Your task to perform on an android device: Empty the shopping cart on newegg.com. Add "jbl charge 4" to the cart on newegg.com, then select checkout. Image 0: 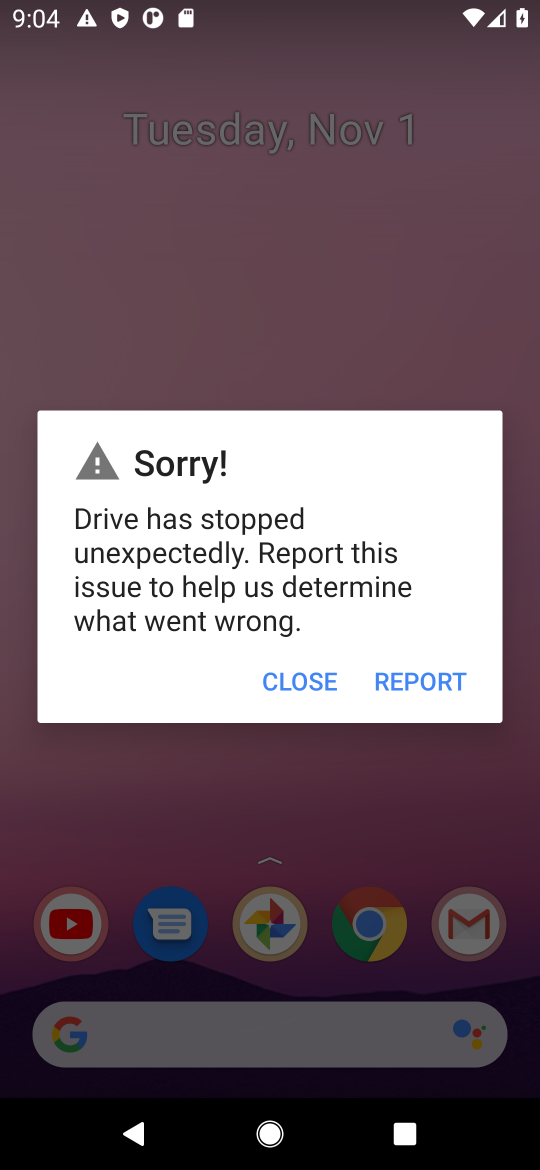
Step 0: click (310, 680)
Your task to perform on an android device: Empty the shopping cart on newegg.com. Add "jbl charge 4" to the cart on newegg.com, then select checkout. Image 1: 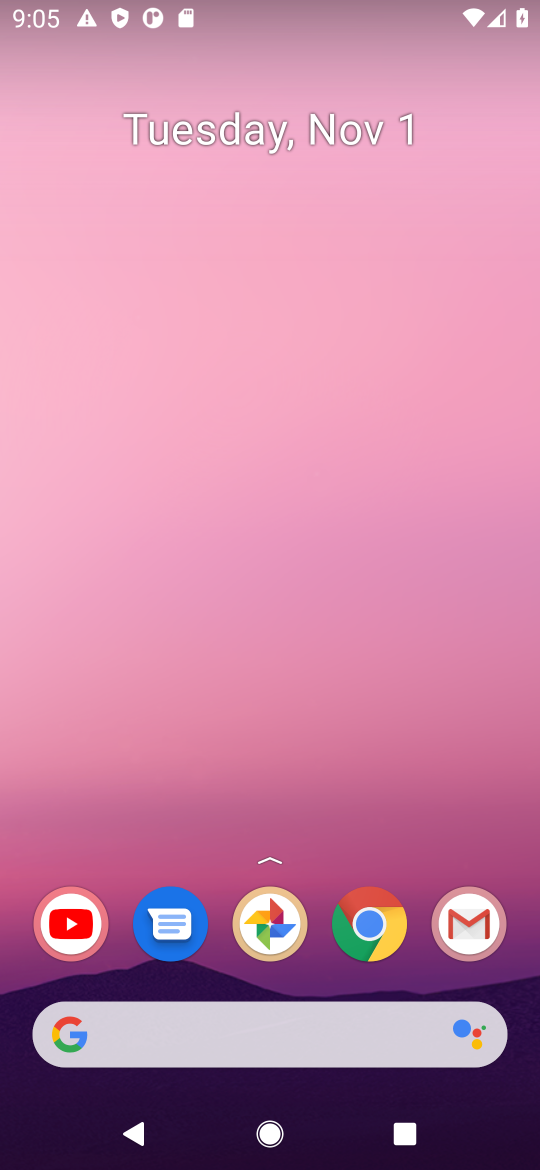
Step 1: click (370, 934)
Your task to perform on an android device: Empty the shopping cart on newegg.com. Add "jbl charge 4" to the cart on newegg.com, then select checkout. Image 2: 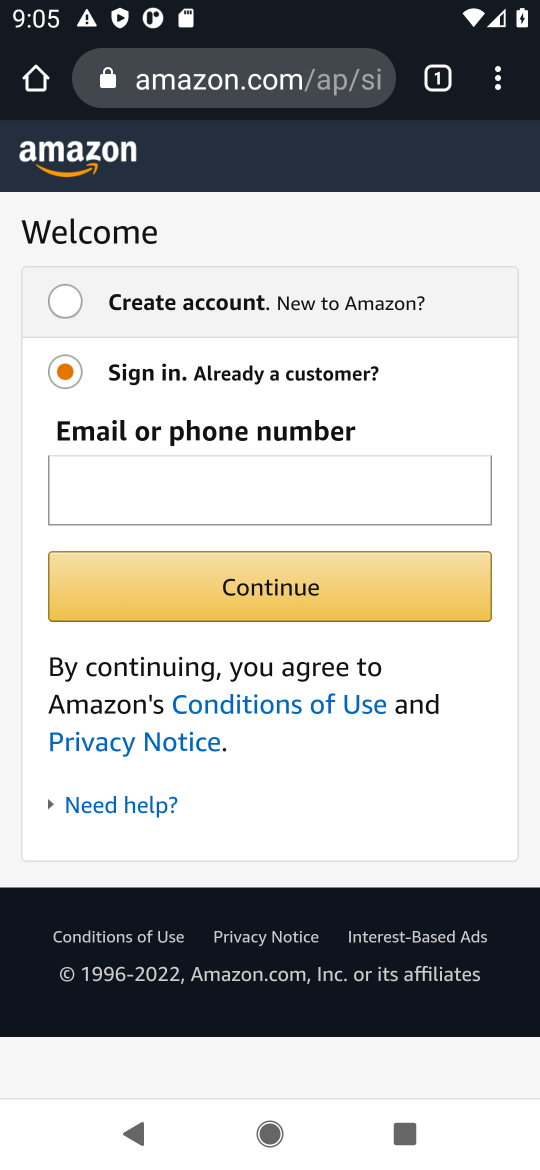
Step 2: click (230, 80)
Your task to perform on an android device: Empty the shopping cart on newegg.com. Add "jbl charge 4" to the cart on newegg.com, then select checkout. Image 3: 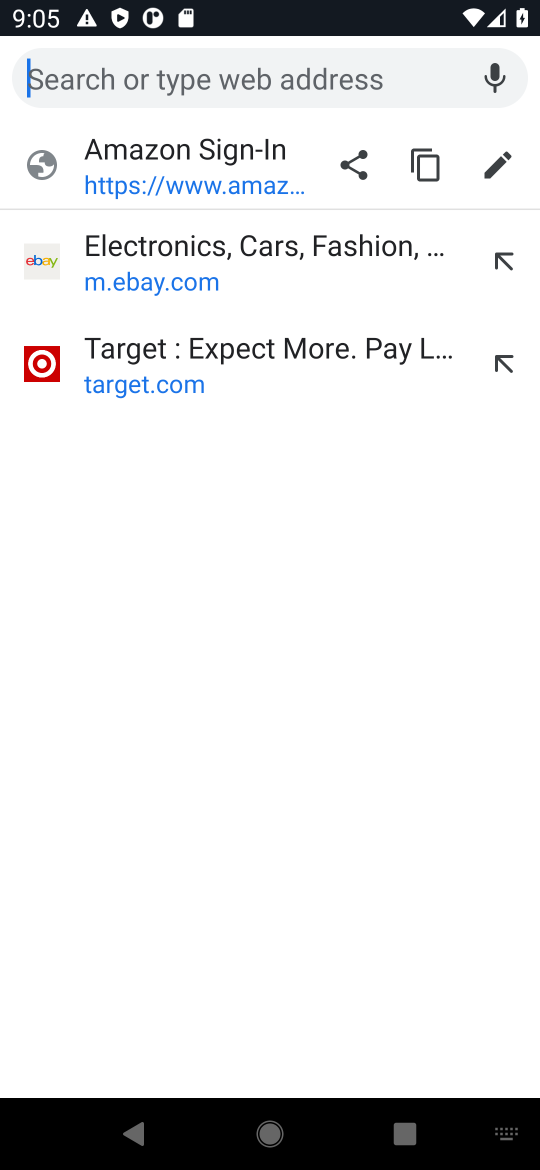
Step 3: type "newegg.com"
Your task to perform on an android device: Empty the shopping cart on newegg.com. Add "jbl charge 4" to the cart on newegg.com, then select checkout. Image 4: 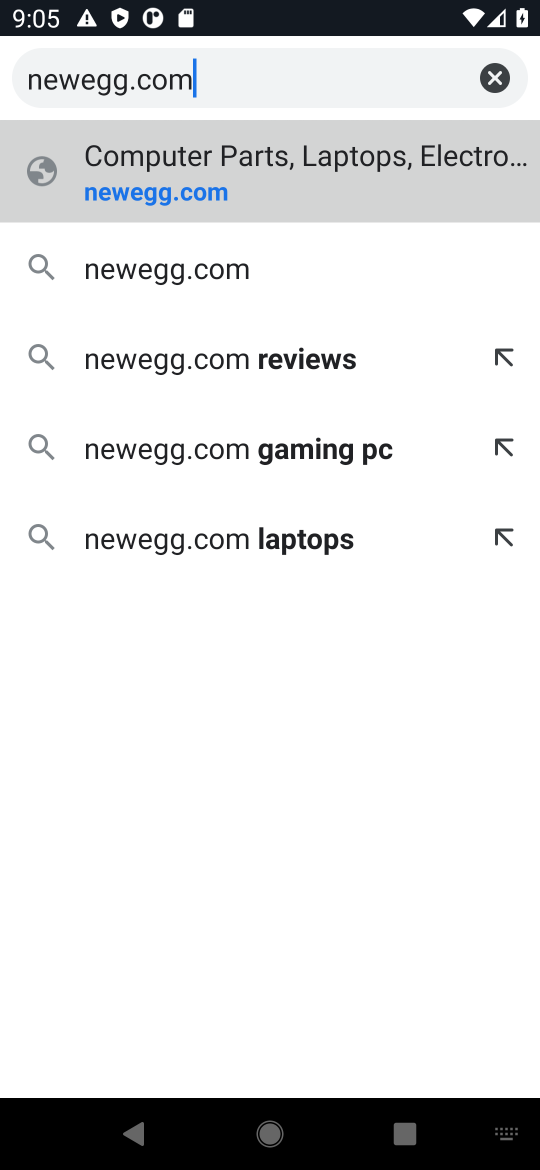
Step 4: press enter
Your task to perform on an android device: Empty the shopping cart on newegg.com. Add "jbl charge 4" to the cart on newegg.com, then select checkout. Image 5: 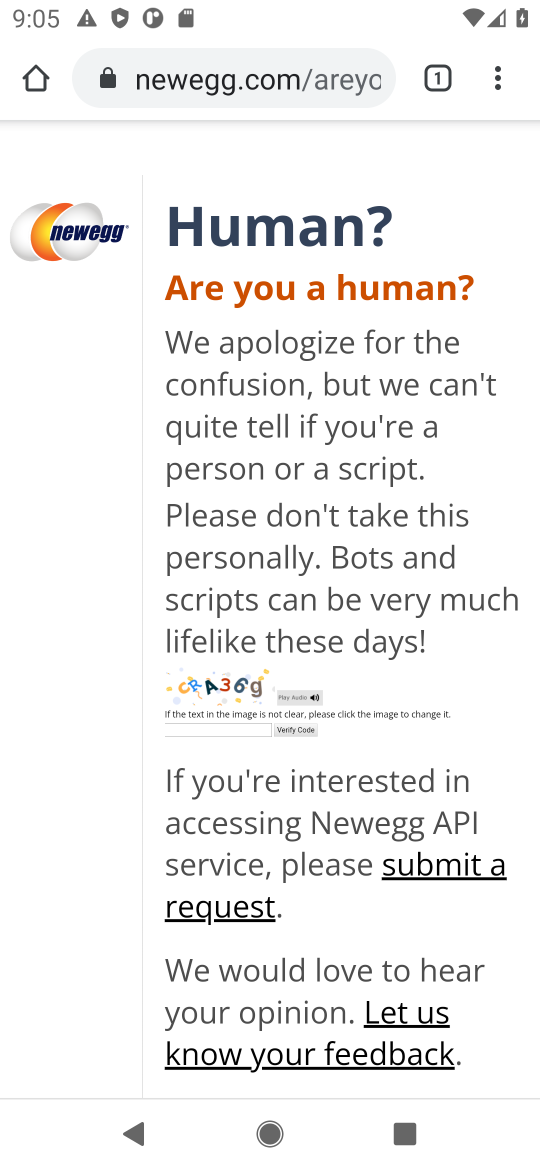
Step 5: click (228, 729)
Your task to perform on an android device: Empty the shopping cart on newegg.com. Add "jbl charge 4" to the cart on newegg.com, then select checkout. Image 6: 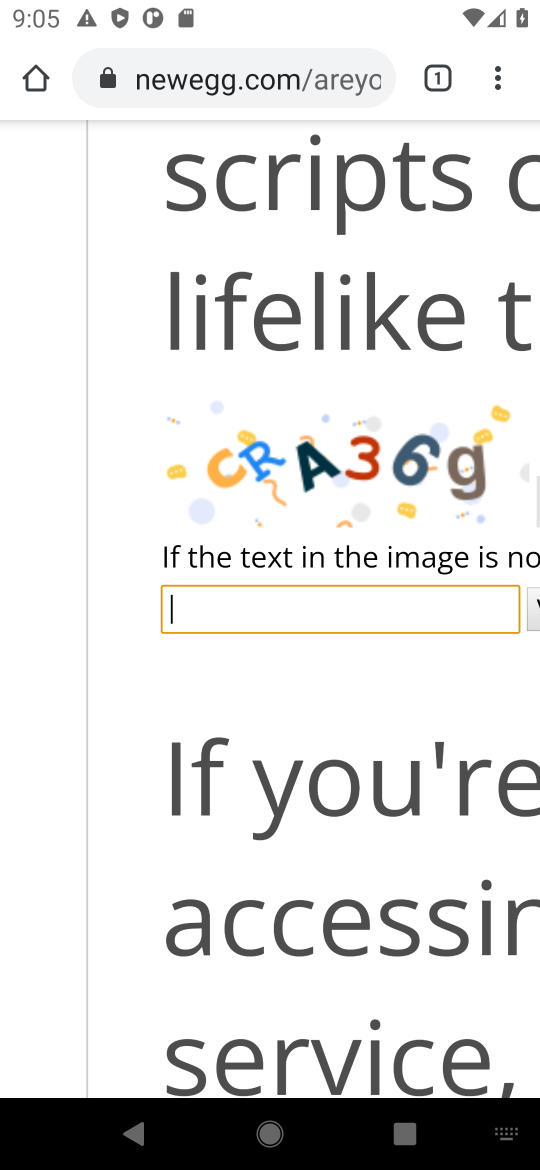
Step 6: type "CRA36g"
Your task to perform on an android device: Empty the shopping cart on newegg.com. Add "jbl charge 4" to the cart on newegg.com, then select checkout. Image 7: 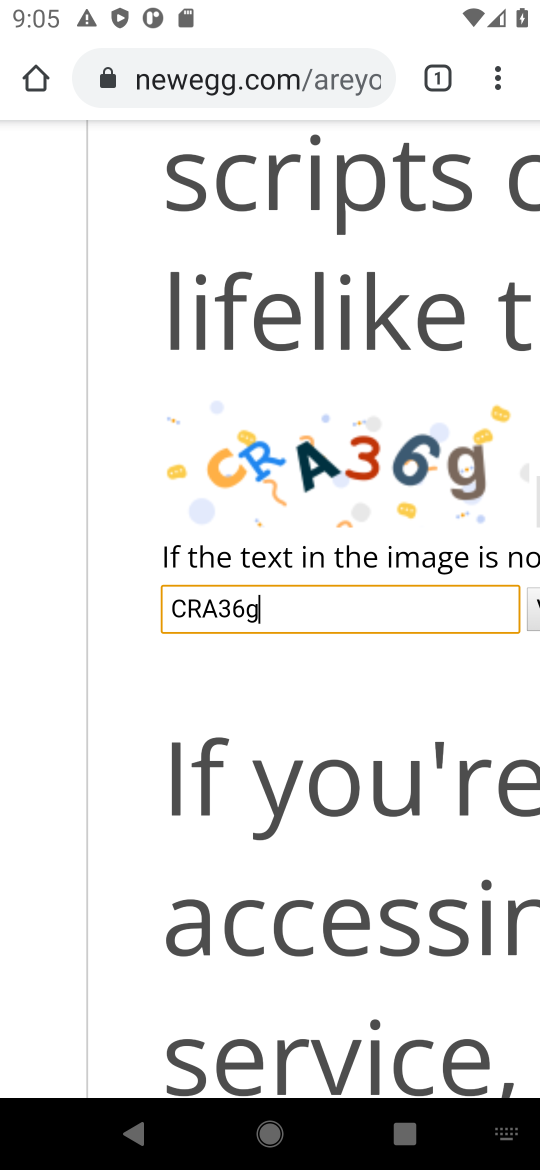
Step 7: press enter
Your task to perform on an android device: Empty the shopping cart on newegg.com. Add "jbl charge 4" to the cart on newegg.com, then select checkout. Image 8: 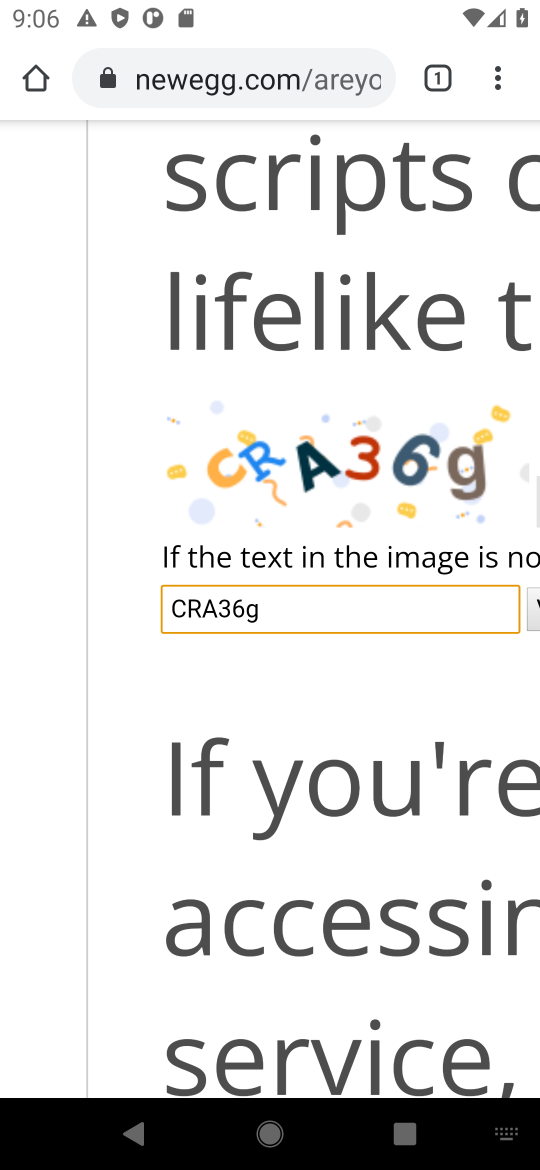
Step 8: click (536, 604)
Your task to perform on an android device: Empty the shopping cart on newegg.com. Add "jbl charge 4" to the cart on newegg.com, then select checkout. Image 9: 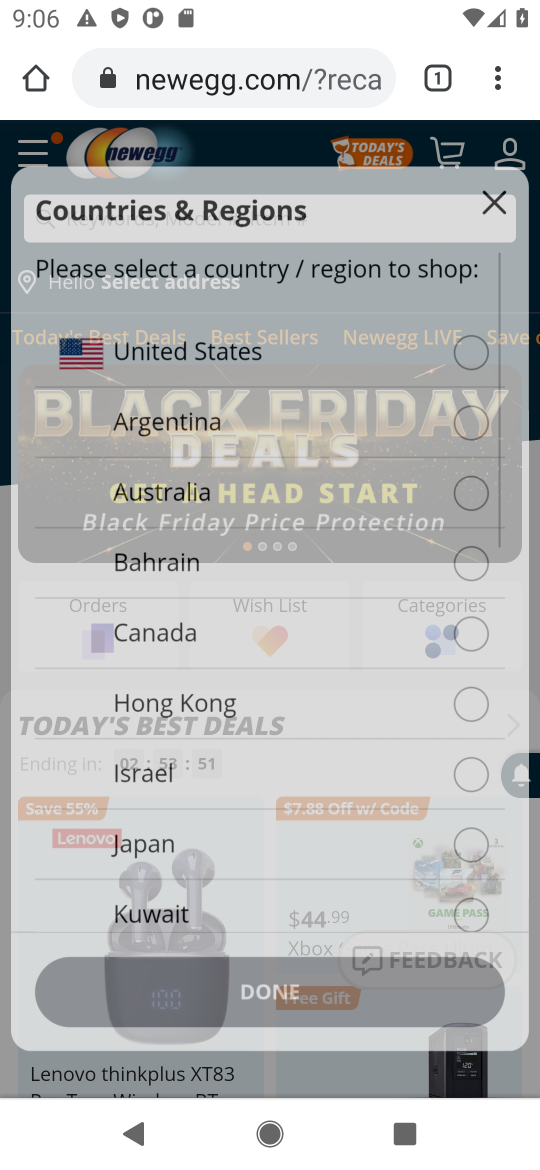
Step 9: click (459, 149)
Your task to perform on an android device: Empty the shopping cart on newegg.com. Add "jbl charge 4" to the cart on newegg.com, then select checkout. Image 10: 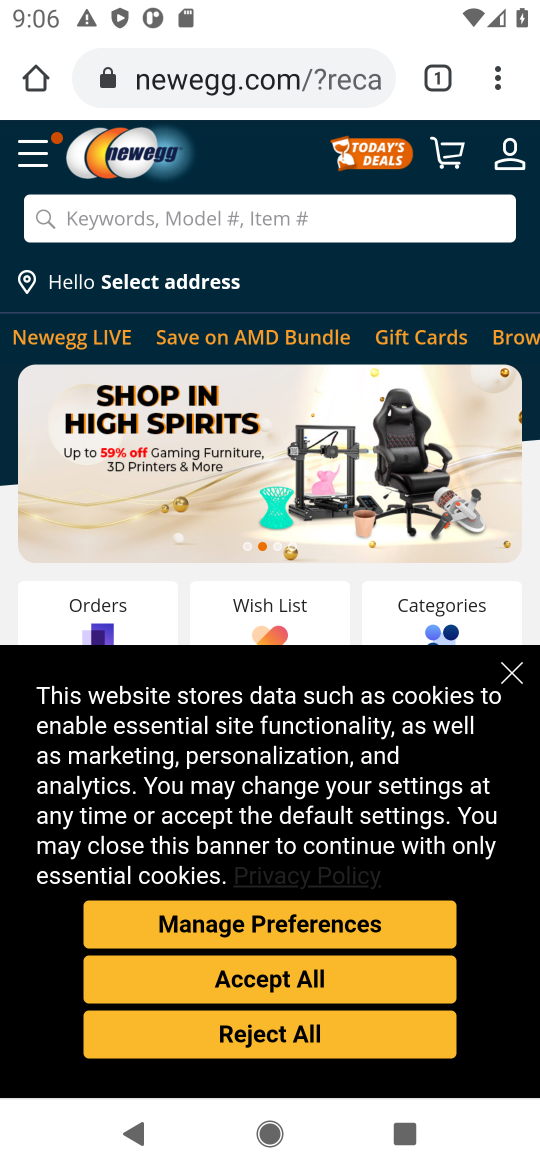
Step 10: click (516, 671)
Your task to perform on an android device: Empty the shopping cart on newegg.com. Add "jbl charge 4" to the cart on newegg.com, then select checkout. Image 11: 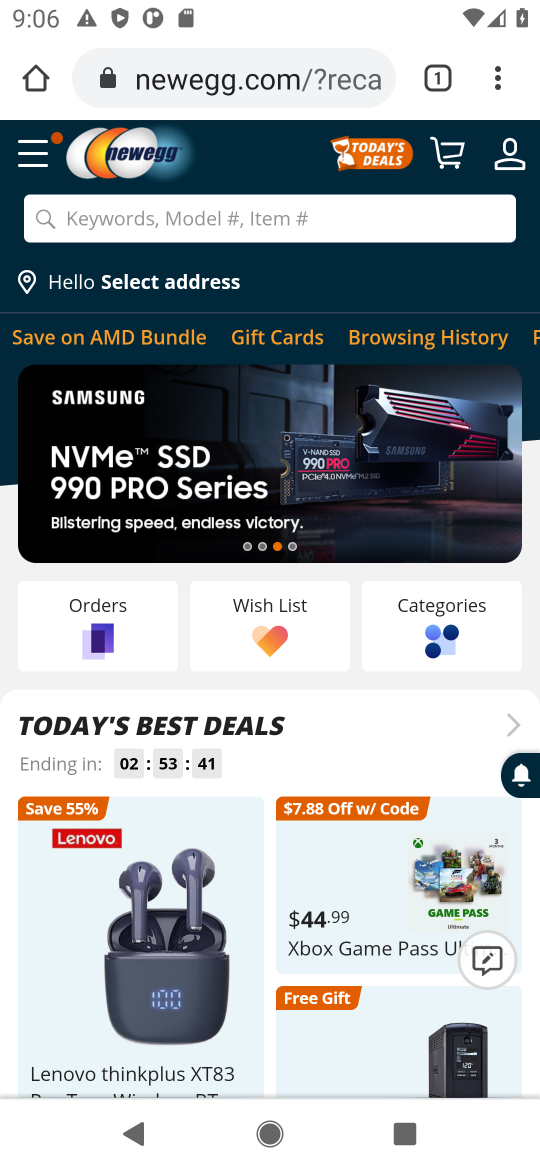
Step 11: click (446, 161)
Your task to perform on an android device: Empty the shopping cart on newegg.com. Add "jbl charge 4" to the cart on newegg.com, then select checkout. Image 12: 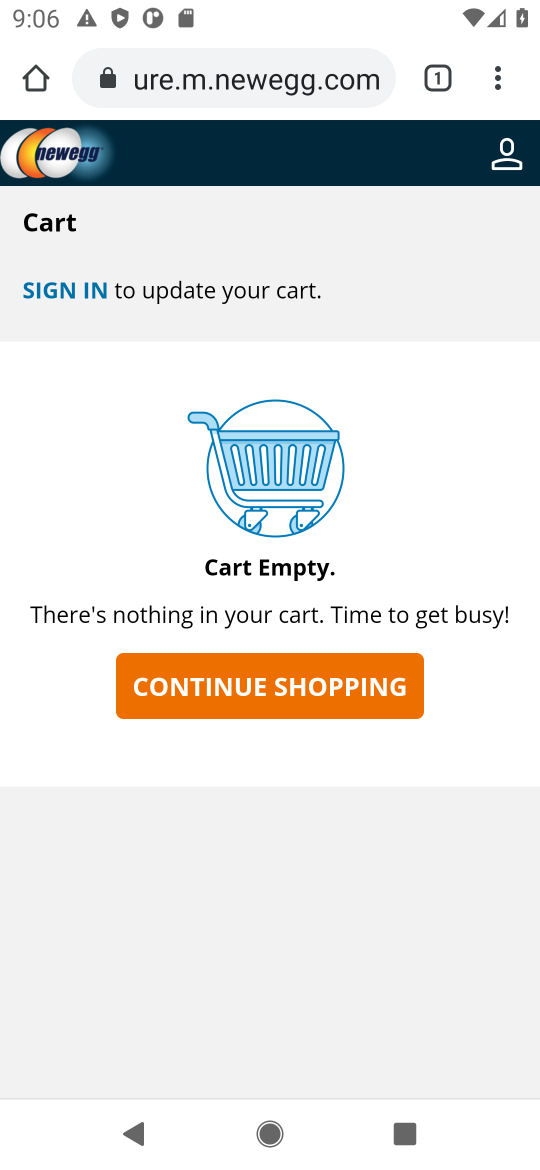
Step 12: click (256, 687)
Your task to perform on an android device: Empty the shopping cart on newegg.com. Add "jbl charge 4" to the cart on newegg.com, then select checkout. Image 13: 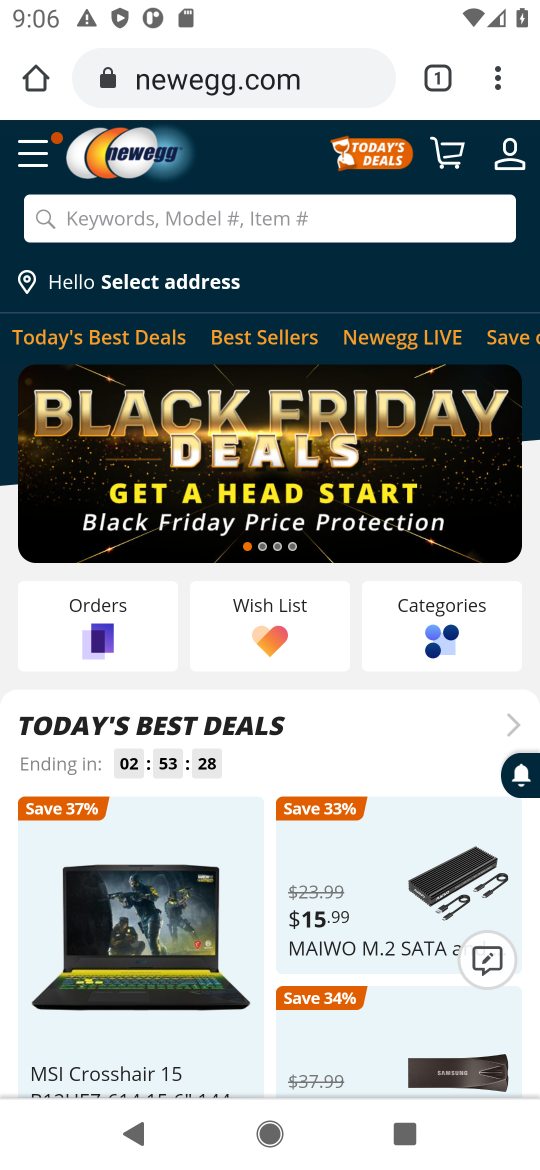
Step 13: click (350, 224)
Your task to perform on an android device: Empty the shopping cart on newegg.com. Add "jbl charge 4" to the cart on newegg.com, then select checkout. Image 14: 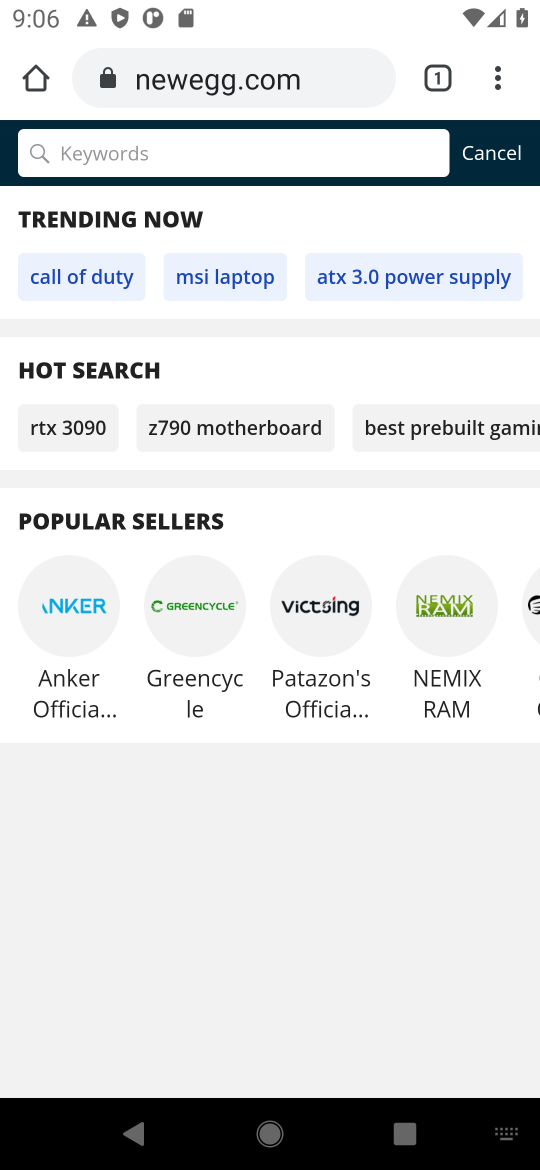
Step 14: type "jbl charge 4"
Your task to perform on an android device: Empty the shopping cart on newegg.com. Add "jbl charge 4" to the cart on newegg.com, then select checkout. Image 15: 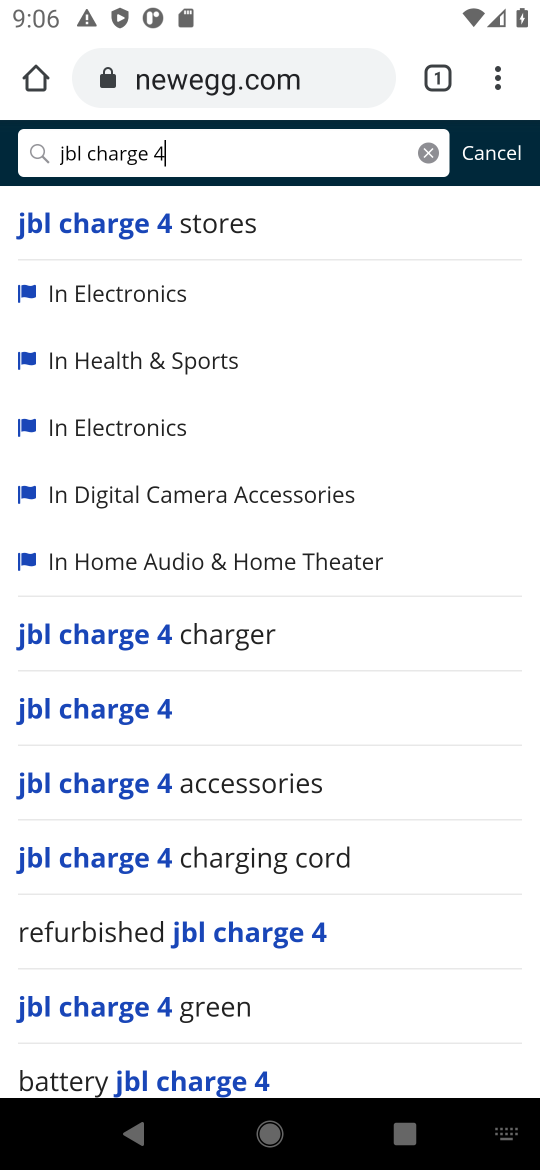
Step 15: press enter
Your task to perform on an android device: Empty the shopping cart on newegg.com. Add "jbl charge 4" to the cart on newegg.com, then select checkout. Image 16: 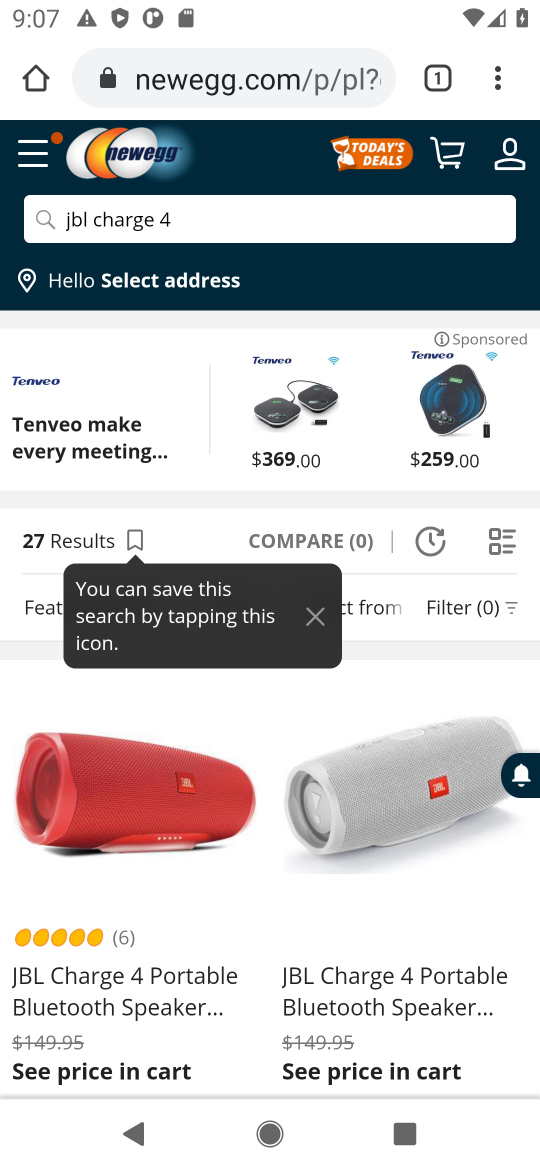
Step 16: click (132, 825)
Your task to perform on an android device: Empty the shopping cart on newegg.com. Add "jbl charge 4" to the cart on newegg.com, then select checkout. Image 17: 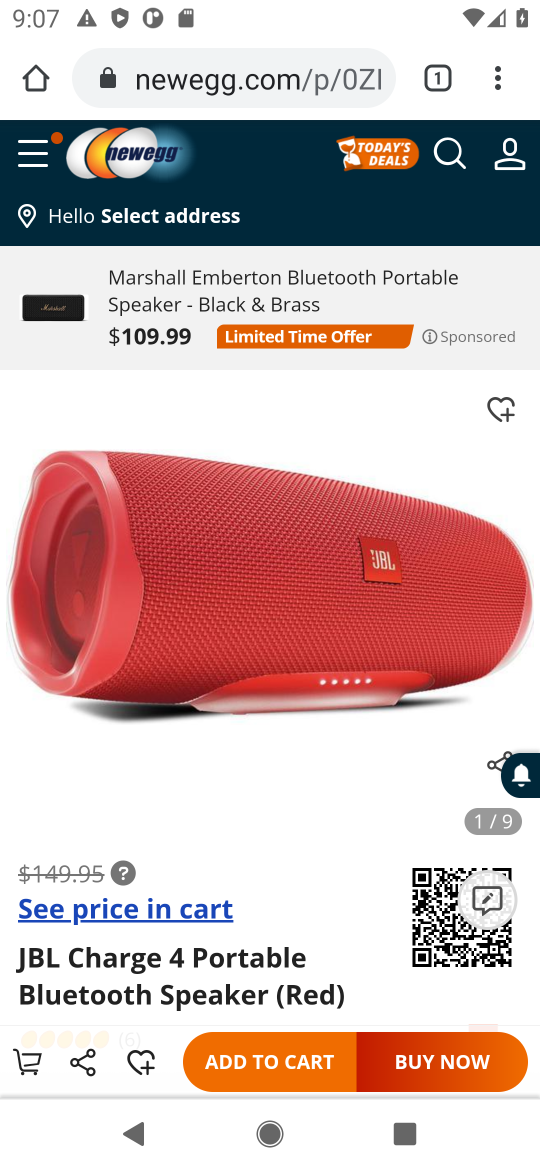
Step 17: click (267, 1061)
Your task to perform on an android device: Empty the shopping cart on newegg.com. Add "jbl charge 4" to the cart on newegg.com, then select checkout. Image 18: 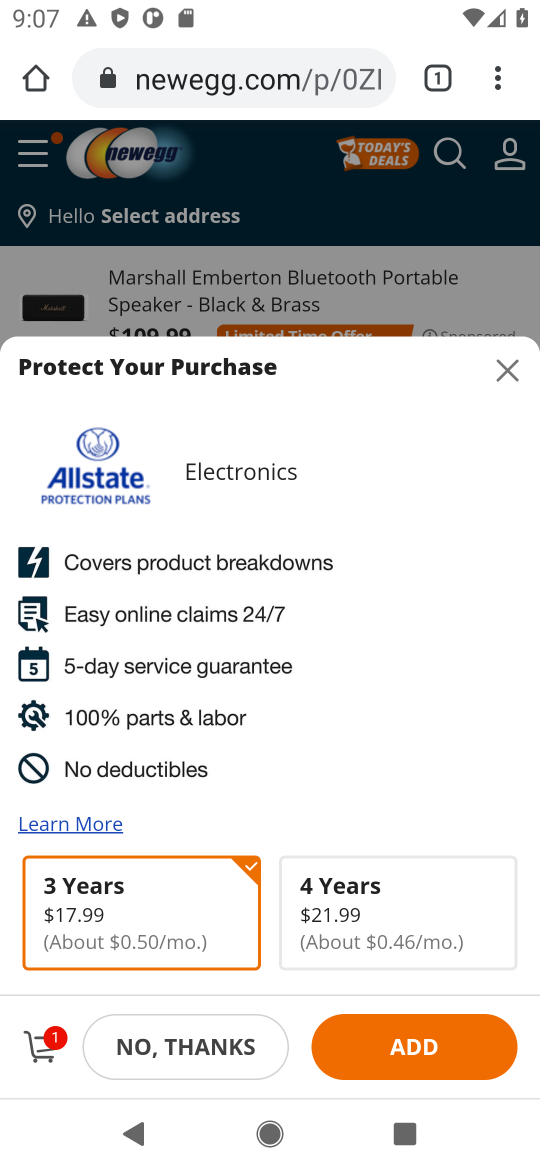
Step 18: click (126, 1047)
Your task to perform on an android device: Empty the shopping cart on newegg.com. Add "jbl charge 4" to the cart on newegg.com, then select checkout. Image 19: 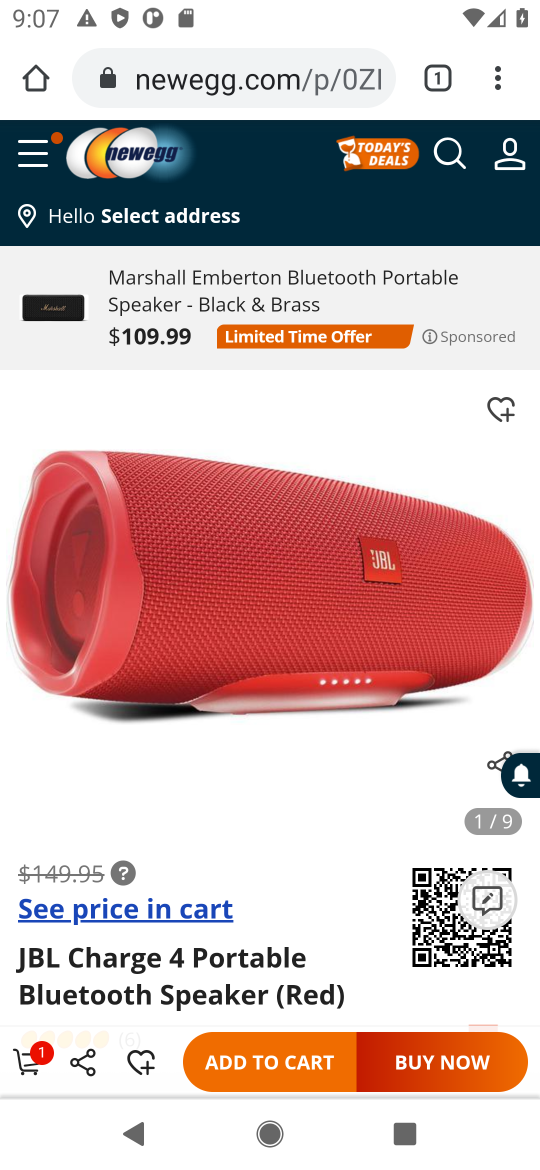
Step 19: click (44, 1053)
Your task to perform on an android device: Empty the shopping cart on newegg.com. Add "jbl charge 4" to the cart on newegg.com, then select checkout. Image 20: 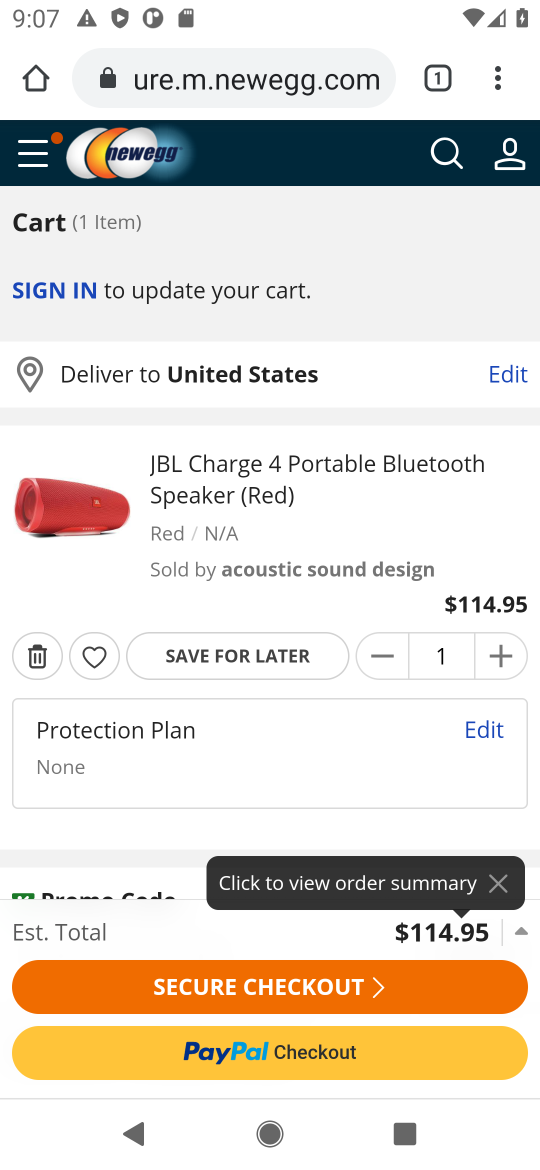
Step 20: click (144, 977)
Your task to perform on an android device: Empty the shopping cart on newegg.com. Add "jbl charge 4" to the cart on newegg.com, then select checkout. Image 21: 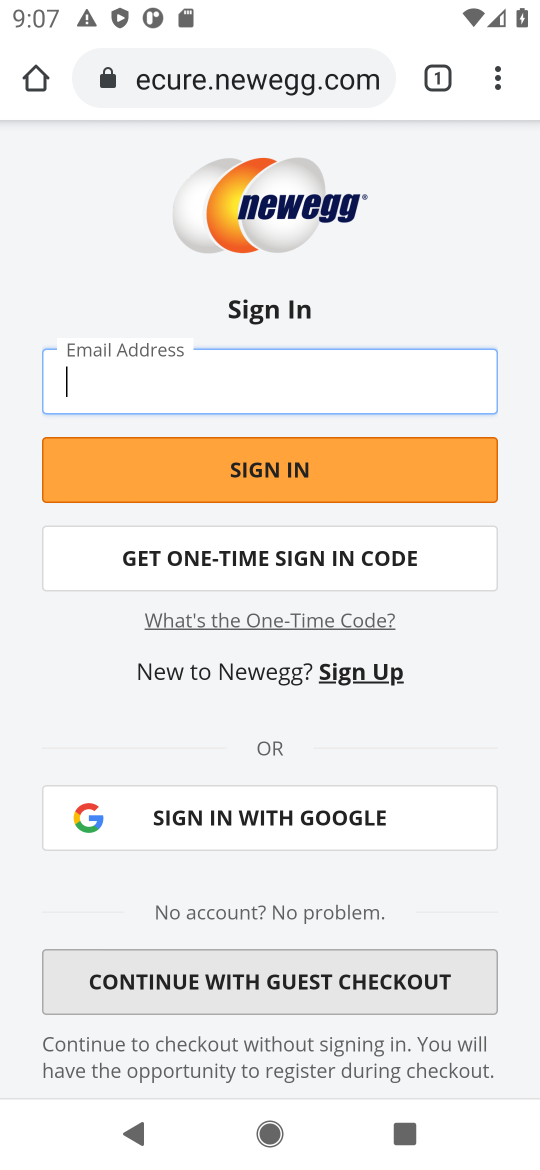
Step 21: task complete